Your task to perform on an android device: Do I have any events today? Image 0: 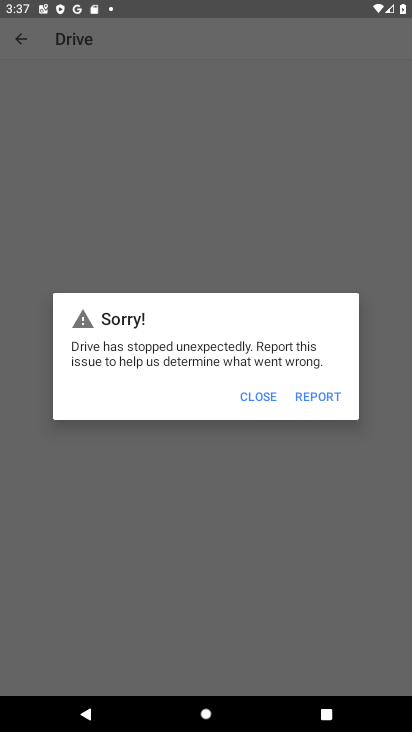
Step 0: press home button
Your task to perform on an android device: Do I have any events today? Image 1: 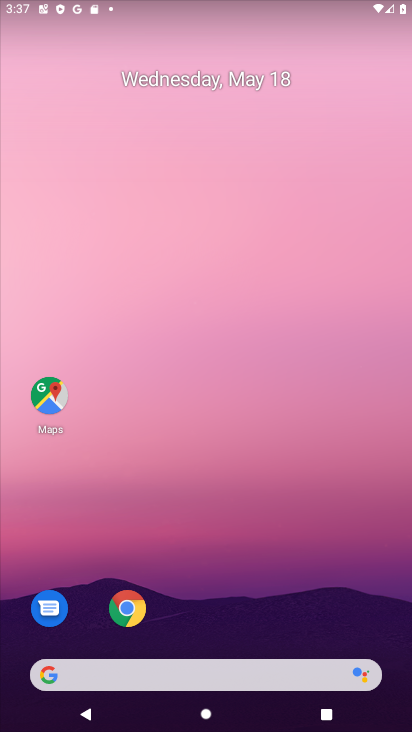
Step 1: drag from (267, 539) to (337, 107)
Your task to perform on an android device: Do I have any events today? Image 2: 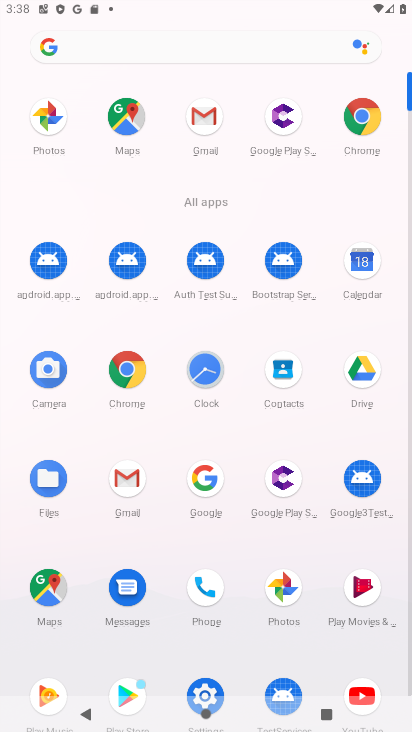
Step 2: click (370, 284)
Your task to perform on an android device: Do I have any events today? Image 3: 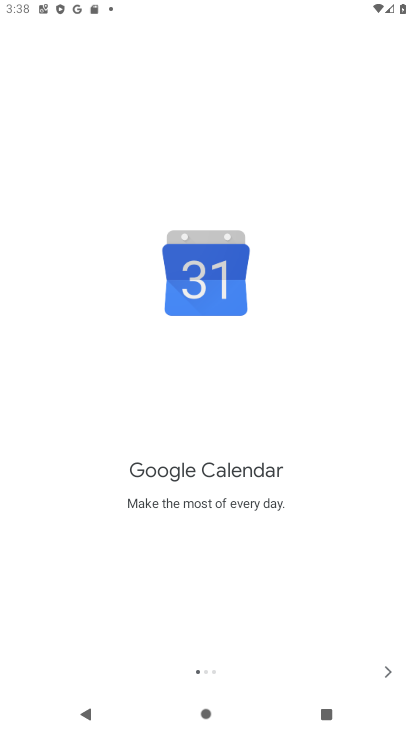
Step 3: click (382, 676)
Your task to perform on an android device: Do I have any events today? Image 4: 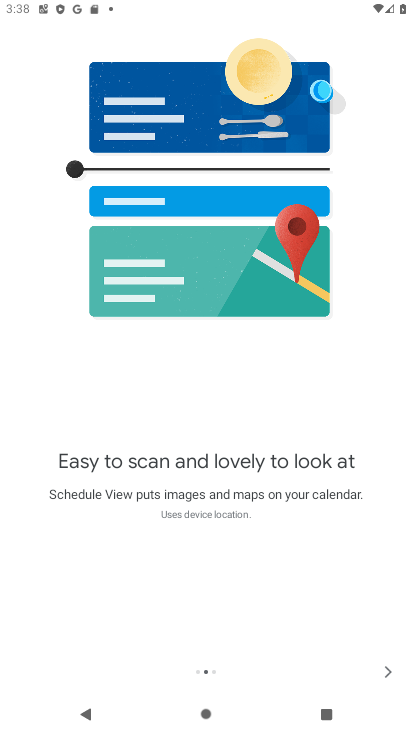
Step 4: click (382, 676)
Your task to perform on an android device: Do I have any events today? Image 5: 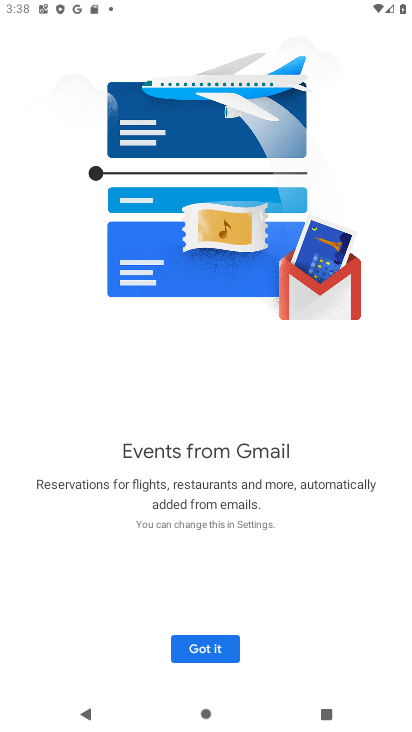
Step 5: click (209, 648)
Your task to perform on an android device: Do I have any events today? Image 6: 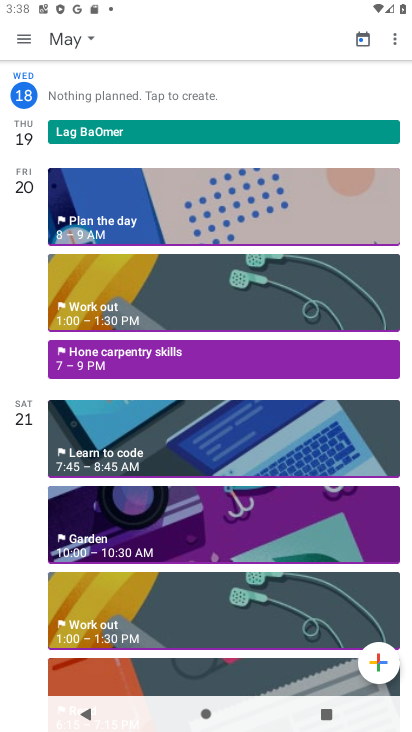
Step 6: click (71, 42)
Your task to perform on an android device: Do I have any events today? Image 7: 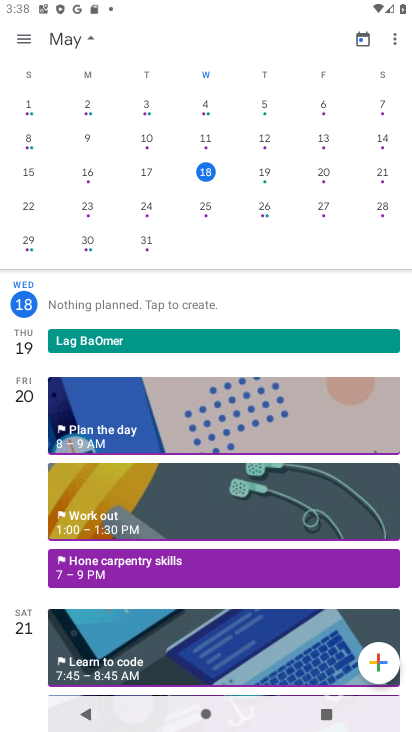
Step 7: click (206, 178)
Your task to perform on an android device: Do I have any events today? Image 8: 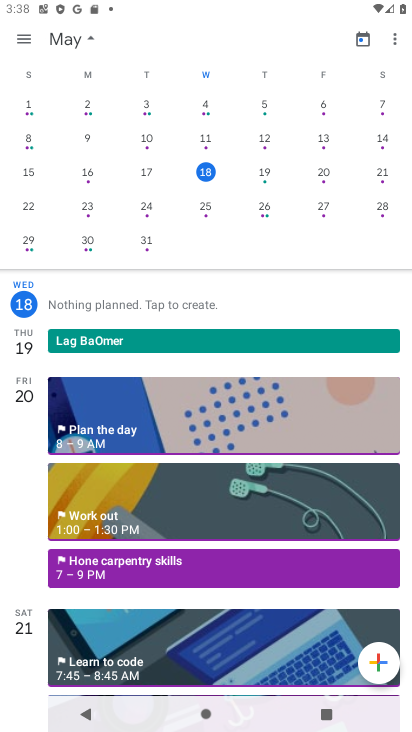
Step 8: task complete